Your task to perform on an android device: Open Chrome and go to settings Image 0: 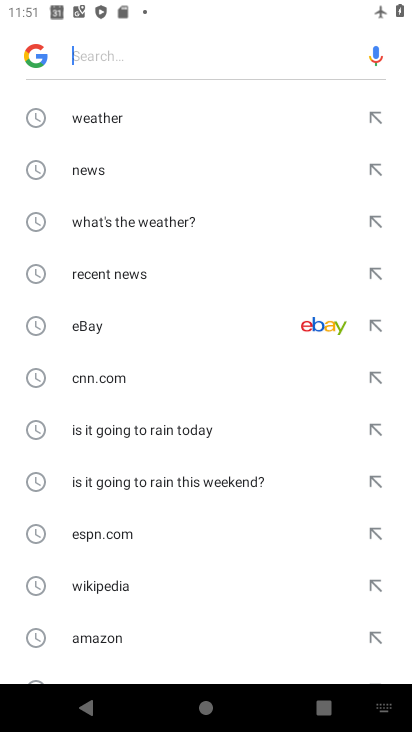
Step 0: press home button
Your task to perform on an android device: Open Chrome and go to settings Image 1: 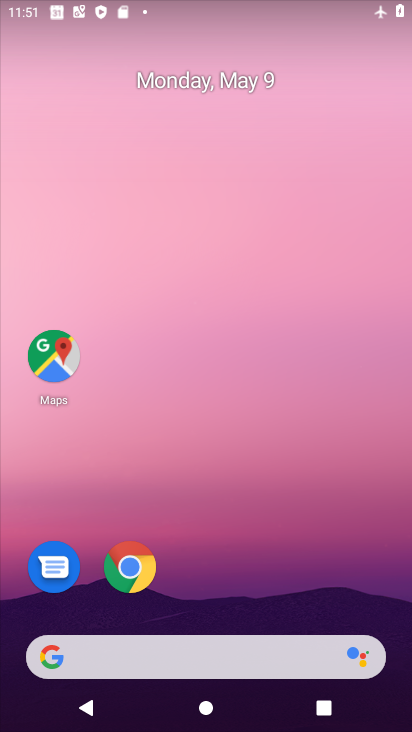
Step 1: drag from (325, 580) to (305, 62)
Your task to perform on an android device: Open Chrome and go to settings Image 2: 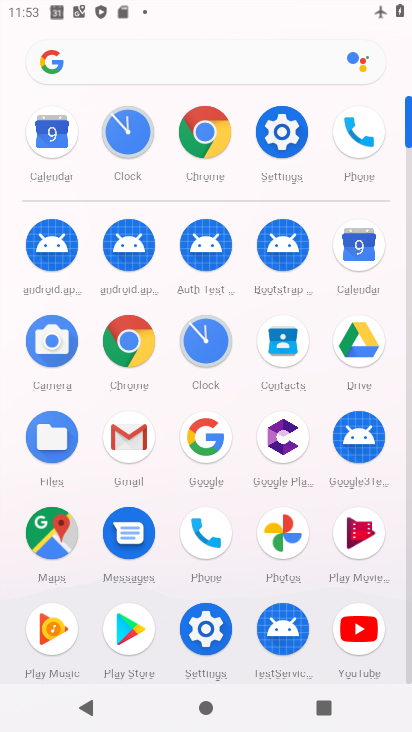
Step 2: click (197, 625)
Your task to perform on an android device: Open Chrome and go to settings Image 3: 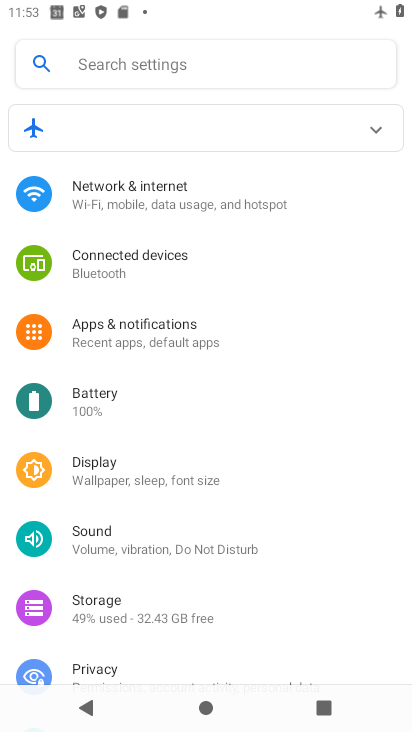
Step 3: press home button
Your task to perform on an android device: Open Chrome and go to settings Image 4: 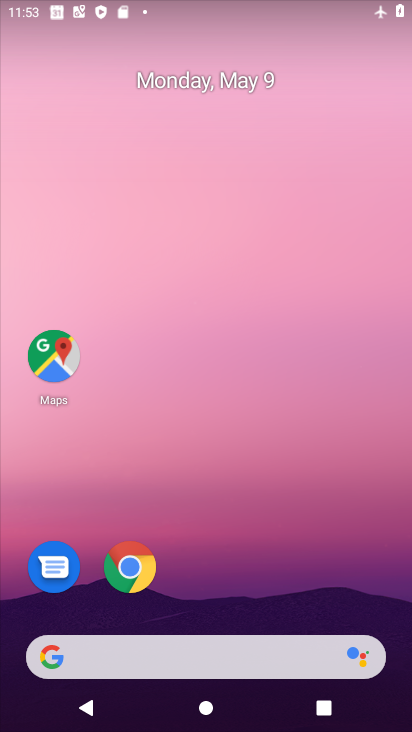
Step 4: click (117, 560)
Your task to perform on an android device: Open Chrome and go to settings Image 5: 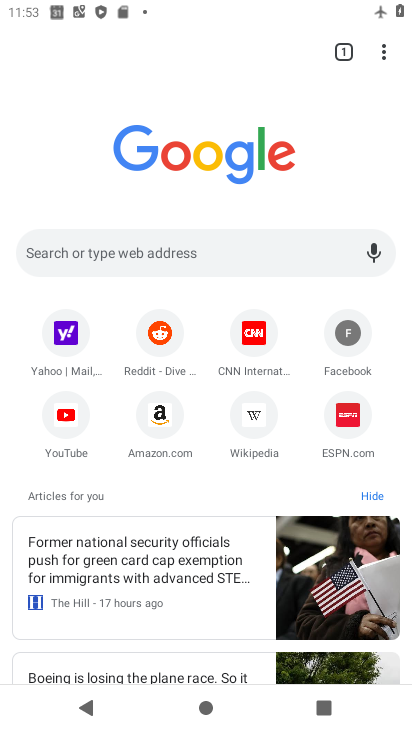
Step 5: click (382, 50)
Your task to perform on an android device: Open Chrome and go to settings Image 6: 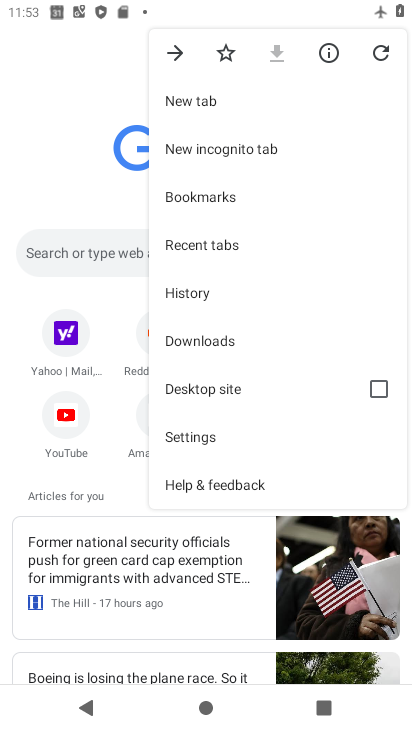
Step 6: click (251, 429)
Your task to perform on an android device: Open Chrome and go to settings Image 7: 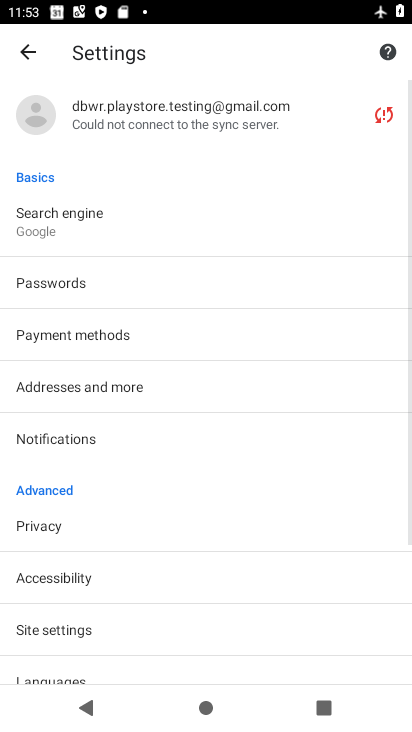
Step 7: task complete